Your task to perform on an android device: Open internet settings Image 0: 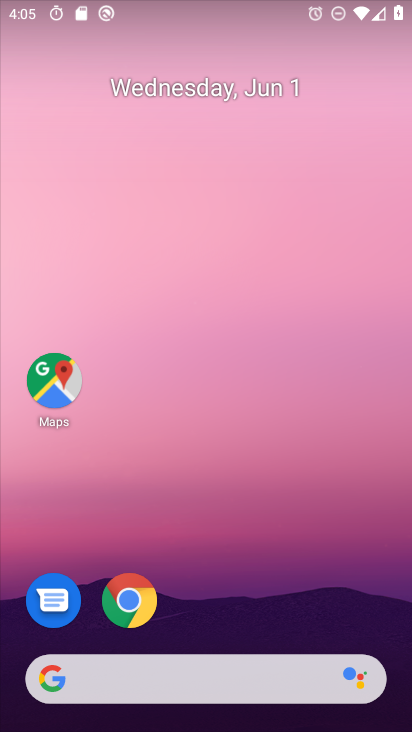
Step 0: drag from (221, 616) to (244, 45)
Your task to perform on an android device: Open internet settings Image 1: 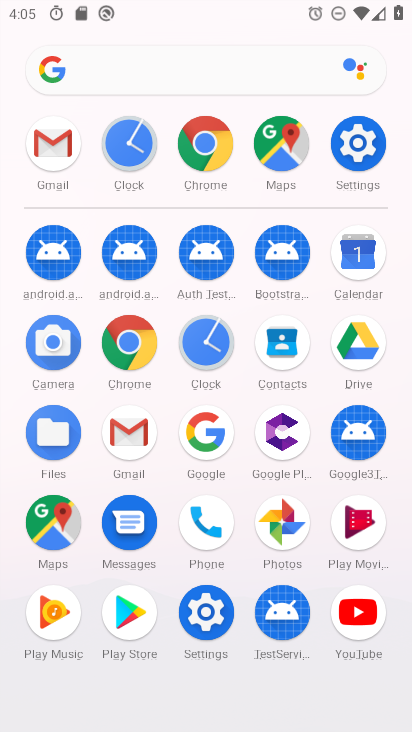
Step 1: click (352, 150)
Your task to perform on an android device: Open internet settings Image 2: 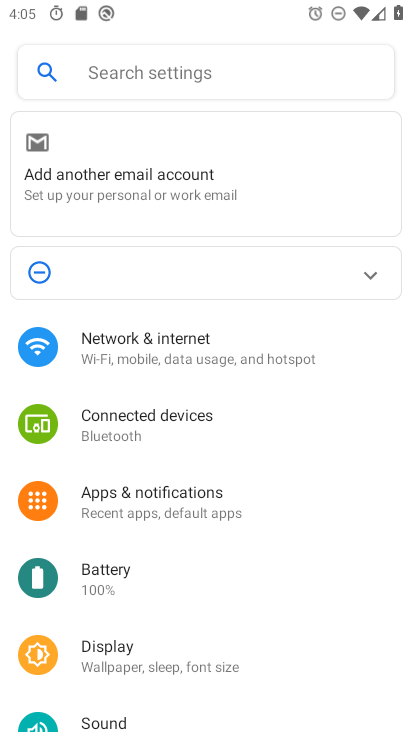
Step 2: click (132, 364)
Your task to perform on an android device: Open internet settings Image 3: 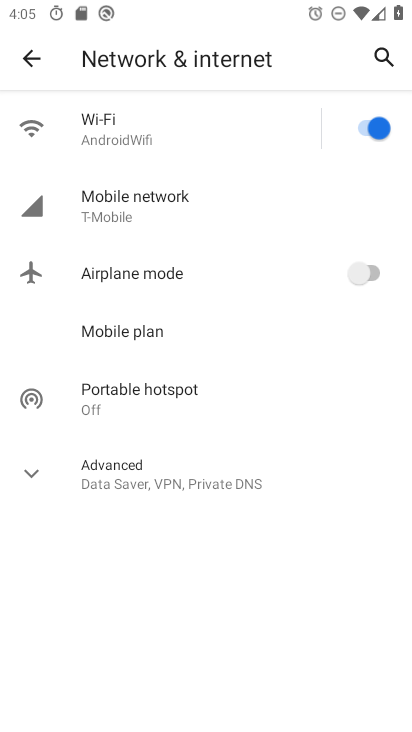
Step 3: click (133, 224)
Your task to perform on an android device: Open internet settings Image 4: 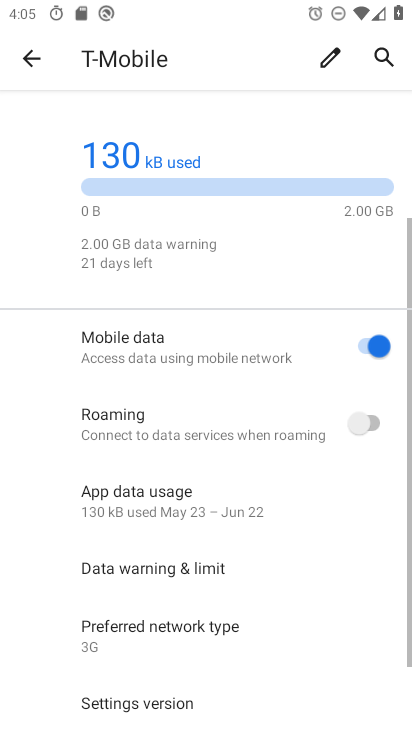
Step 4: task complete